Your task to perform on an android device: Open the stopwatch Image 0: 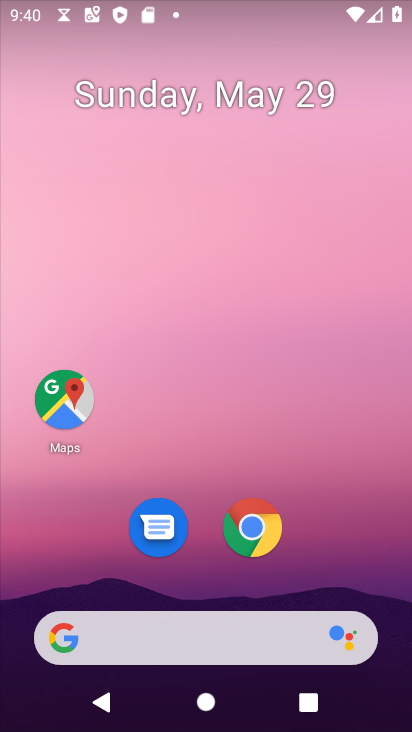
Step 0: press home button
Your task to perform on an android device: Open the stopwatch Image 1: 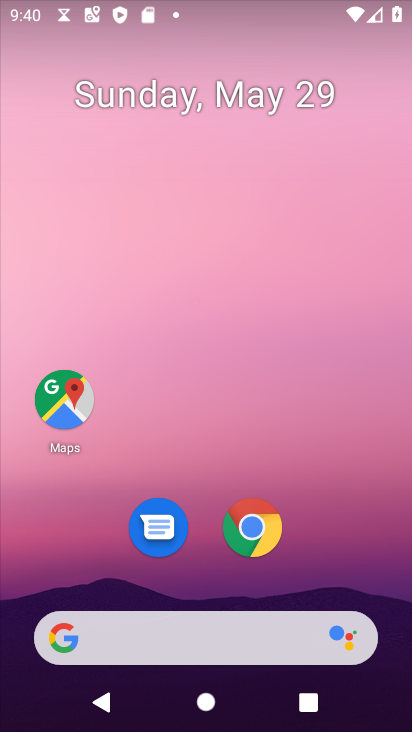
Step 1: drag from (171, 644) to (319, 188)
Your task to perform on an android device: Open the stopwatch Image 2: 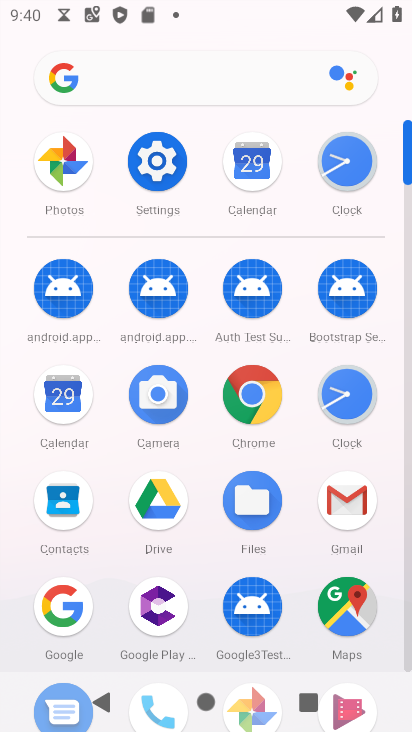
Step 2: click (351, 415)
Your task to perform on an android device: Open the stopwatch Image 3: 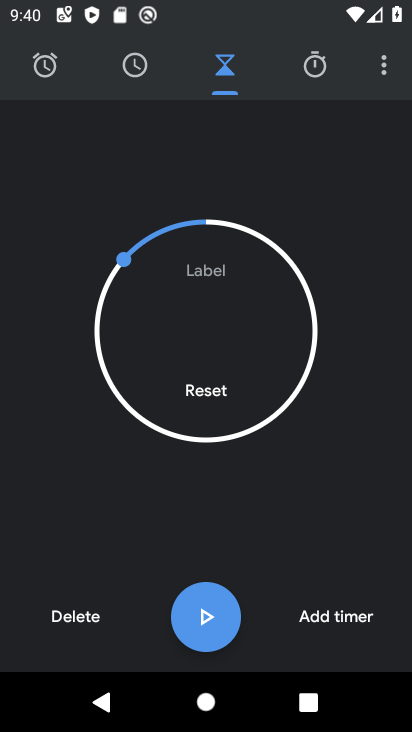
Step 3: click (315, 70)
Your task to perform on an android device: Open the stopwatch Image 4: 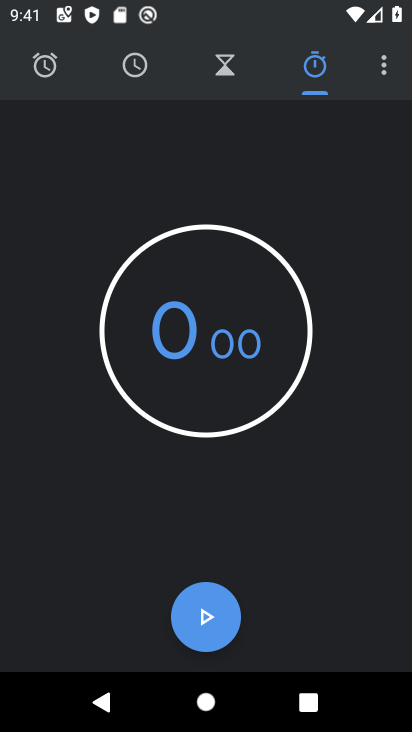
Step 4: task complete